Your task to perform on an android device: allow cookies in the chrome app Image 0: 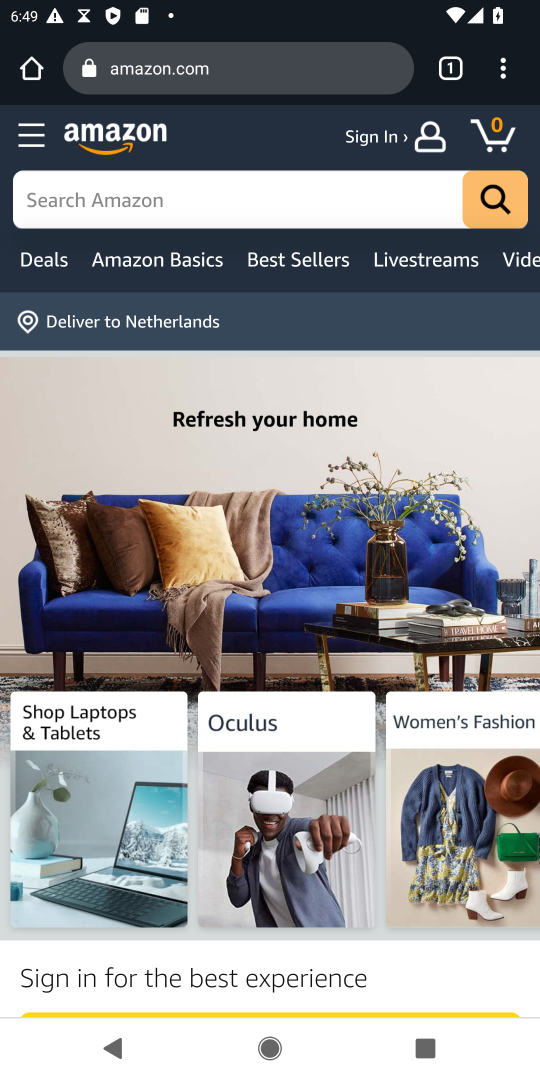
Step 0: press home button
Your task to perform on an android device: allow cookies in the chrome app Image 1: 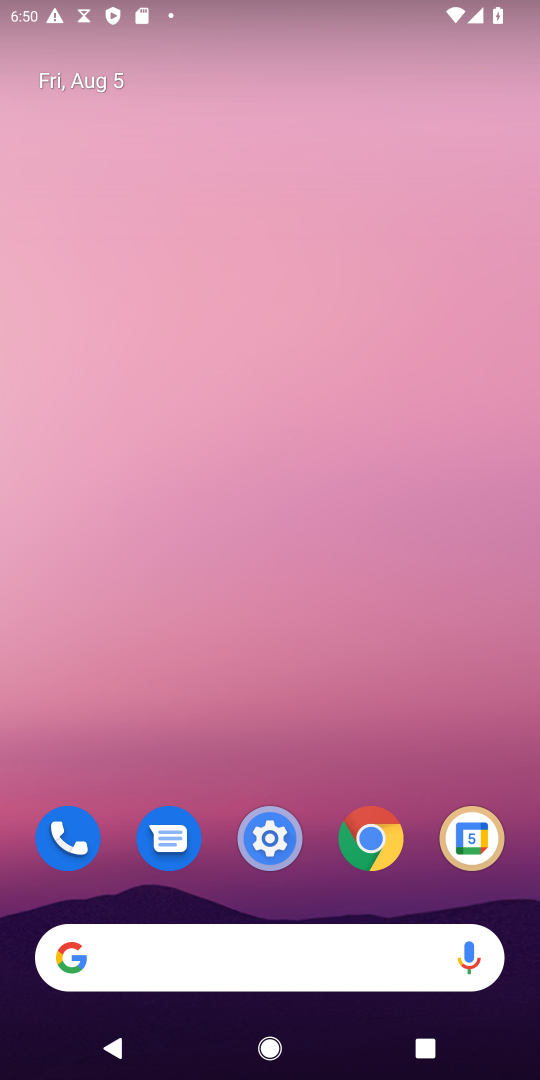
Step 1: click (377, 841)
Your task to perform on an android device: allow cookies in the chrome app Image 2: 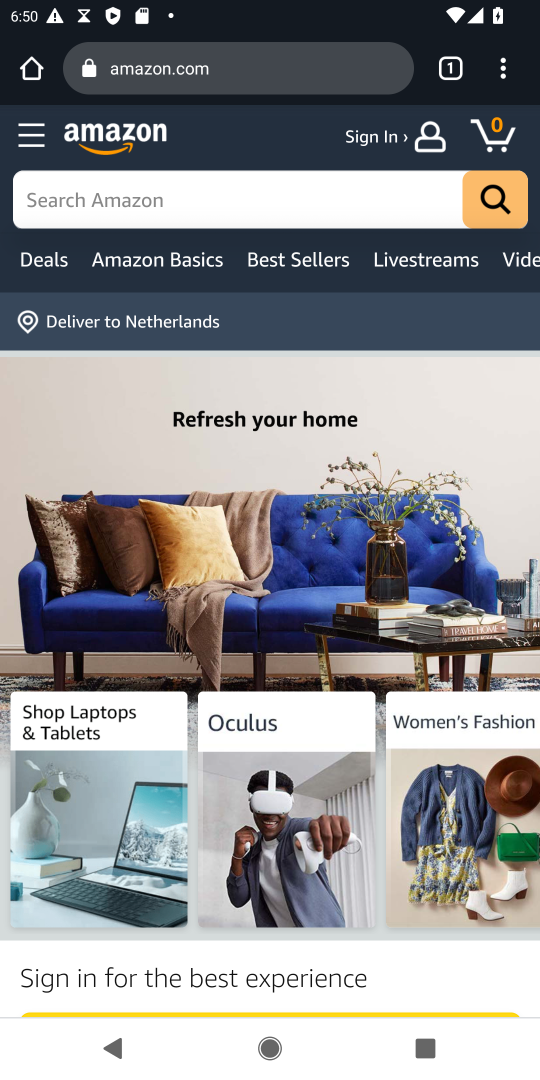
Step 2: drag from (503, 64) to (349, 835)
Your task to perform on an android device: allow cookies in the chrome app Image 3: 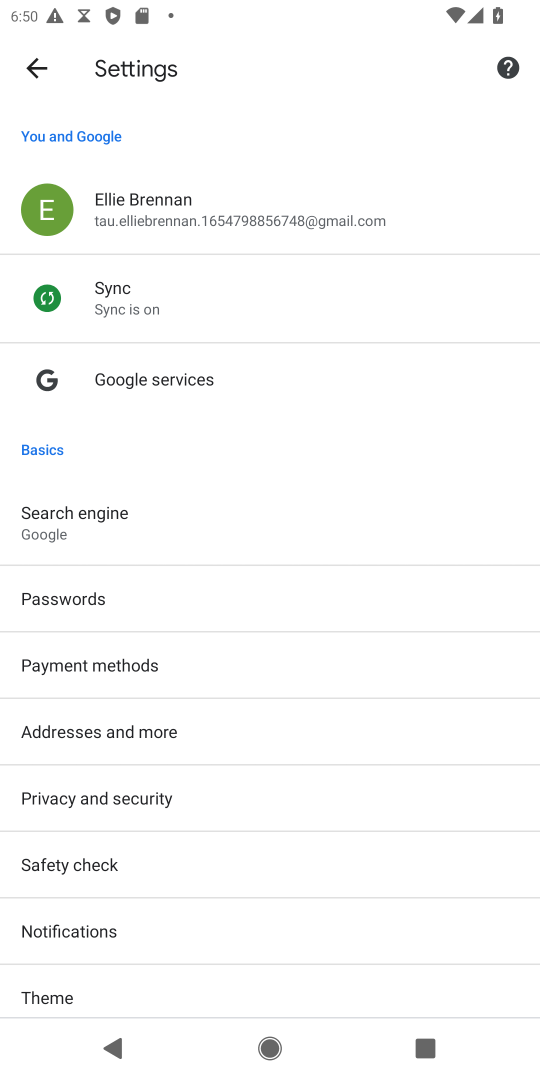
Step 3: drag from (251, 984) to (229, 395)
Your task to perform on an android device: allow cookies in the chrome app Image 4: 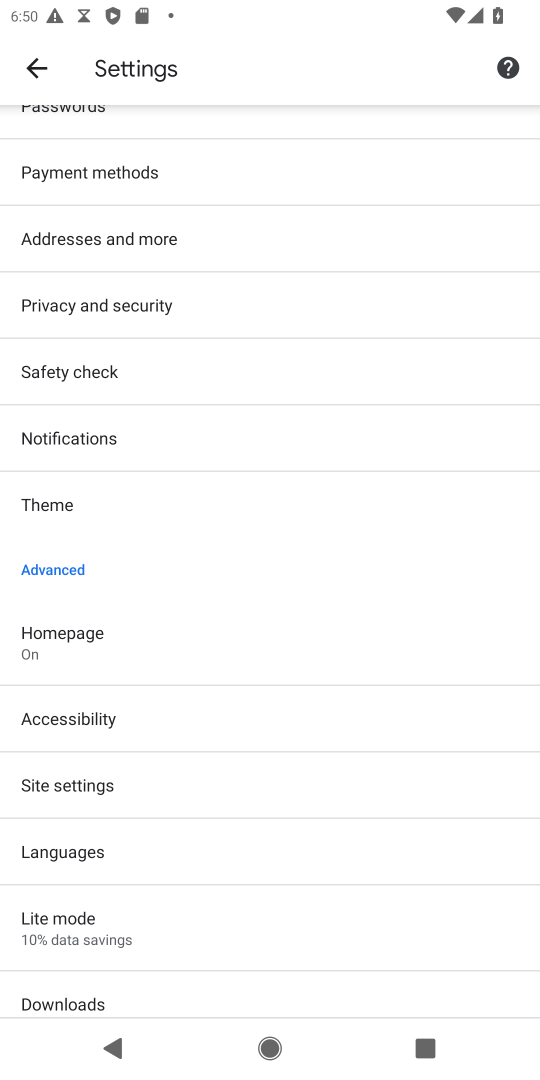
Step 4: click (60, 782)
Your task to perform on an android device: allow cookies in the chrome app Image 5: 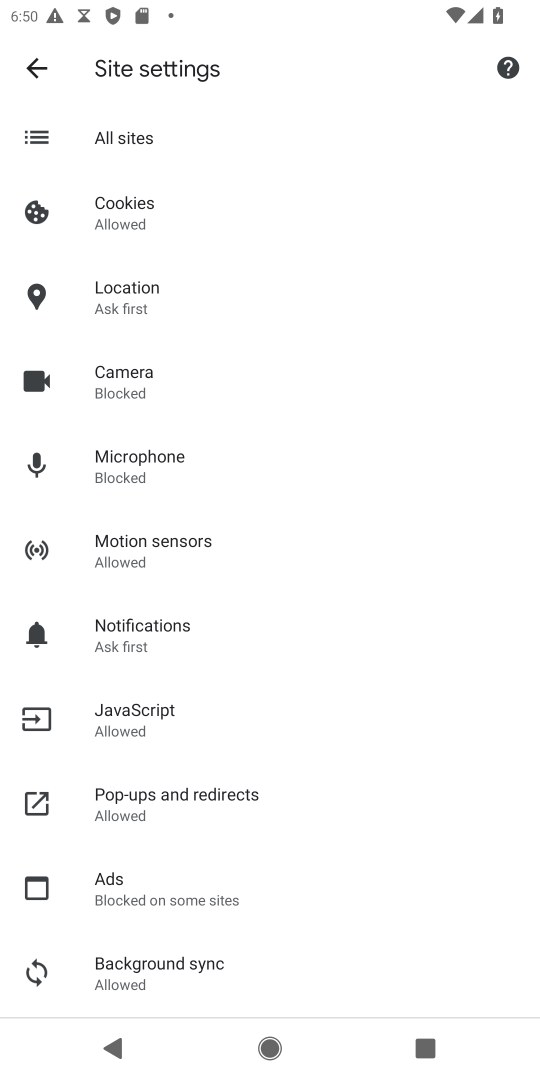
Step 5: click (153, 208)
Your task to perform on an android device: allow cookies in the chrome app Image 6: 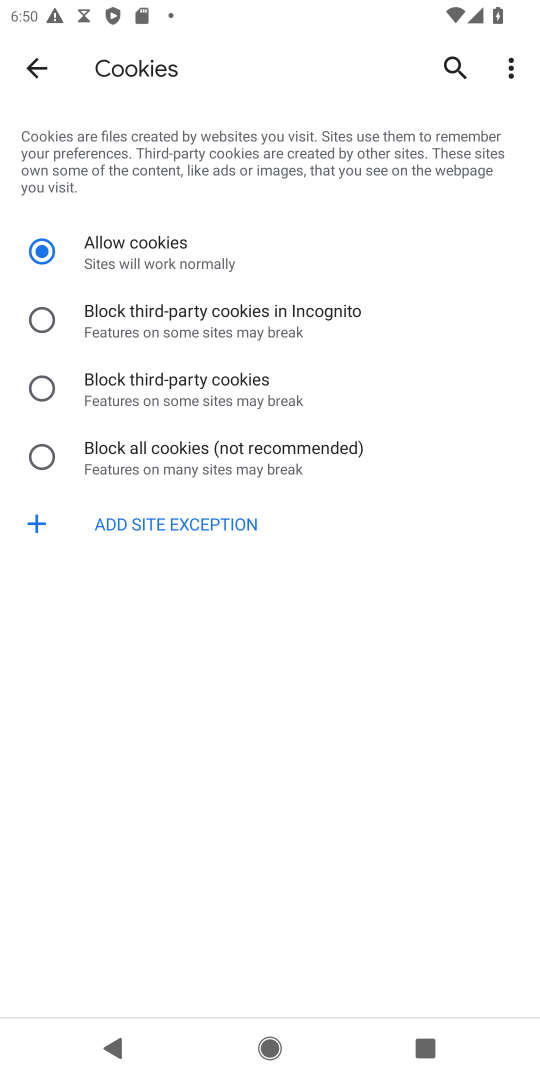
Step 6: task complete